Your task to perform on an android device: open the mobile data screen to see how much data has been used Image 0: 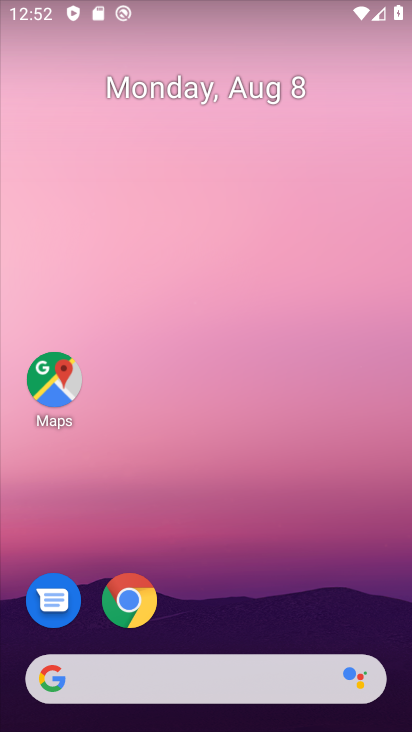
Step 0: press home button
Your task to perform on an android device: open the mobile data screen to see how much data has been used Image 1: 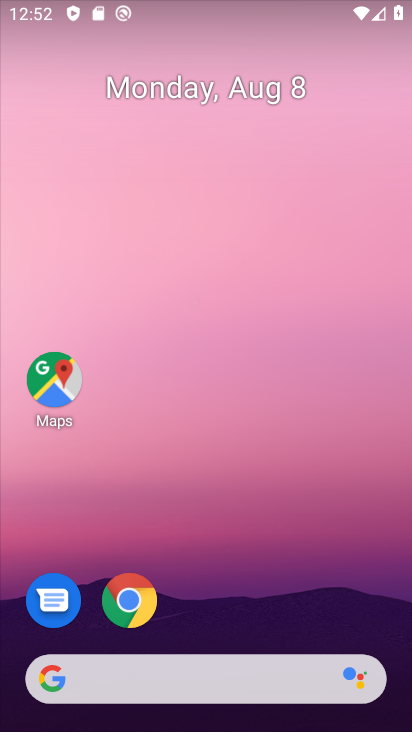
Step 1: drag from (385, 6) to (222, 592)
Your task to perform on an android device: open the mobile data screen to see how much data has been used Image 2: 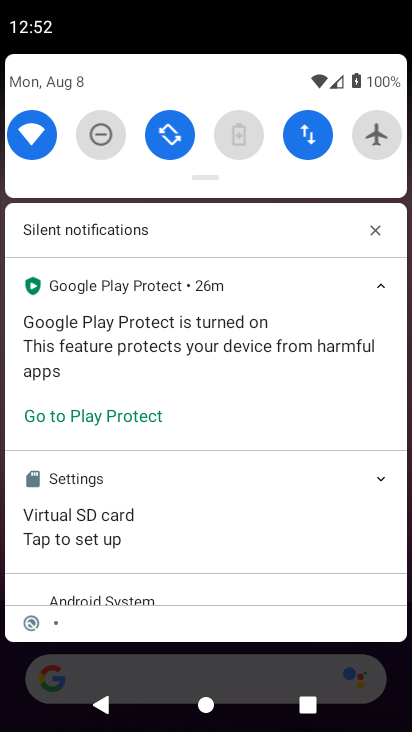
Step 2: click (306, 135)
Your task to perform on an android device: open the mobile data screen to see how much data has been used Image 3: 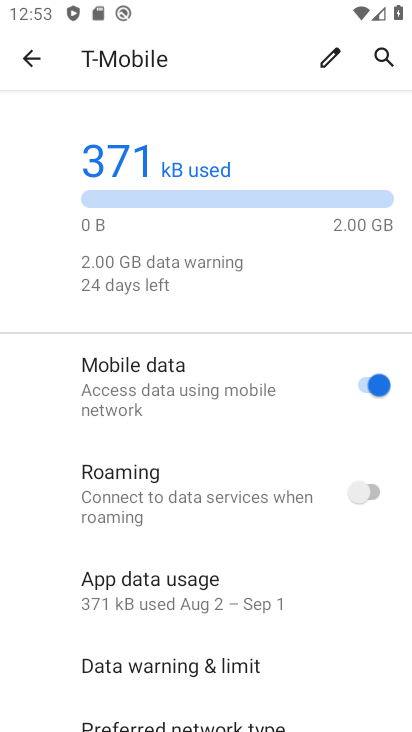
Step 3: task complete